Your task to perform on an android device: Open my contact list Image 0: 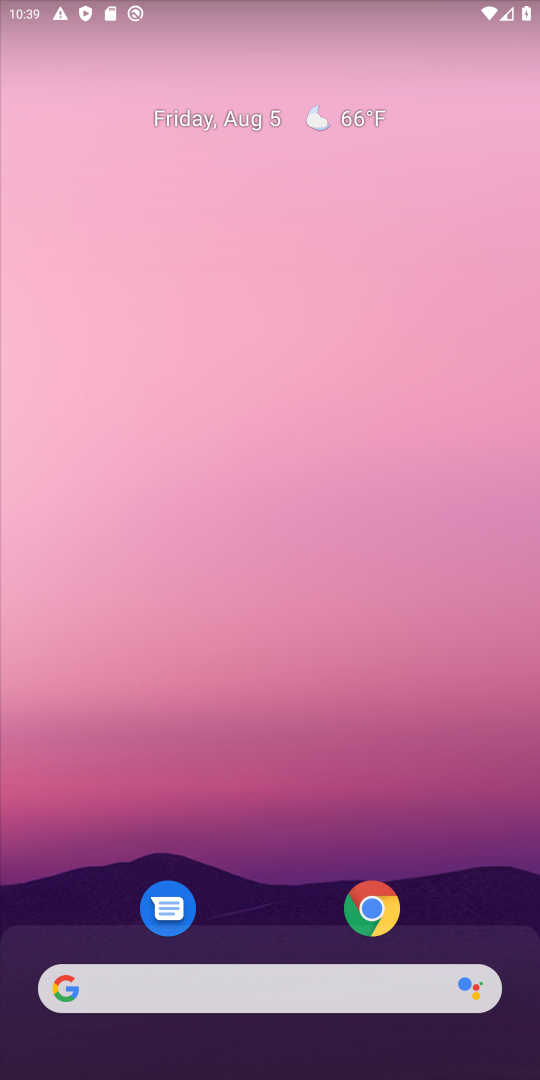
Step 0: drag from (68, 907) to (334, 376)
Your task to perform on an android device: Open my contact list Image 1: 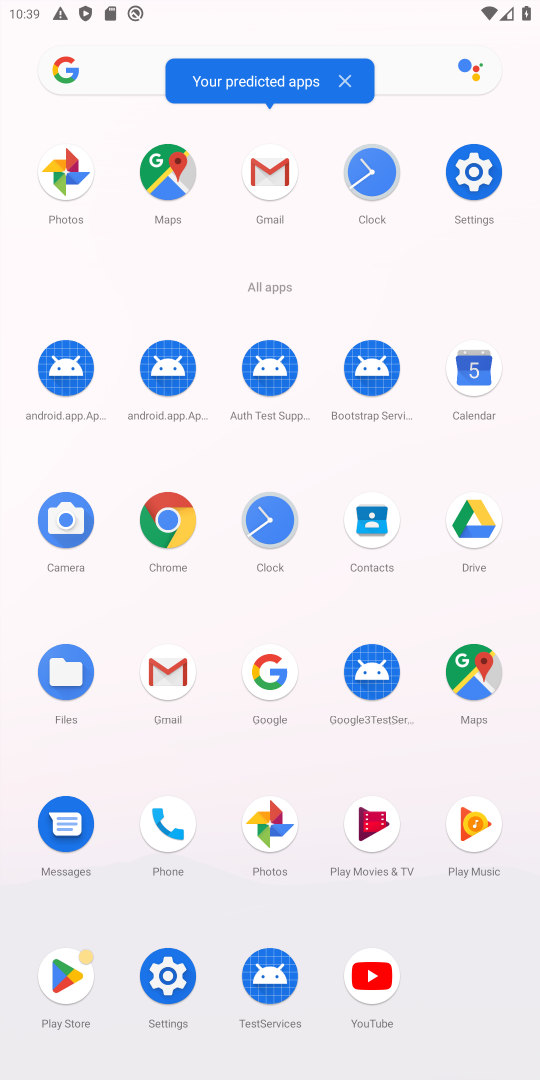
Step 1: click (159, 815)
Your task to perform on an android device: Open my contact list Image 2: 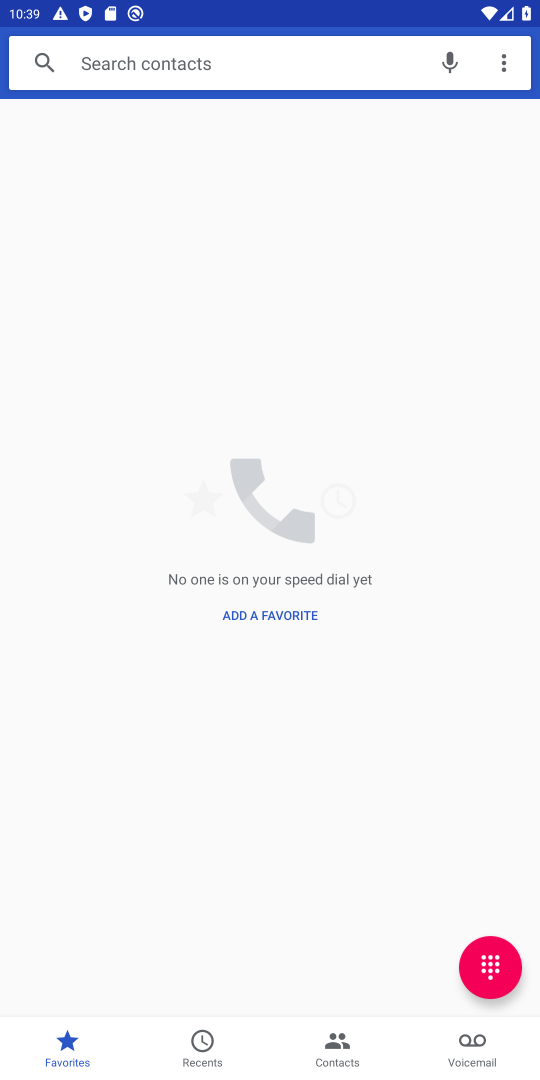
Step 2: click (343, 1072)
Your task to perform on an android device: Open my contact list Image 3: 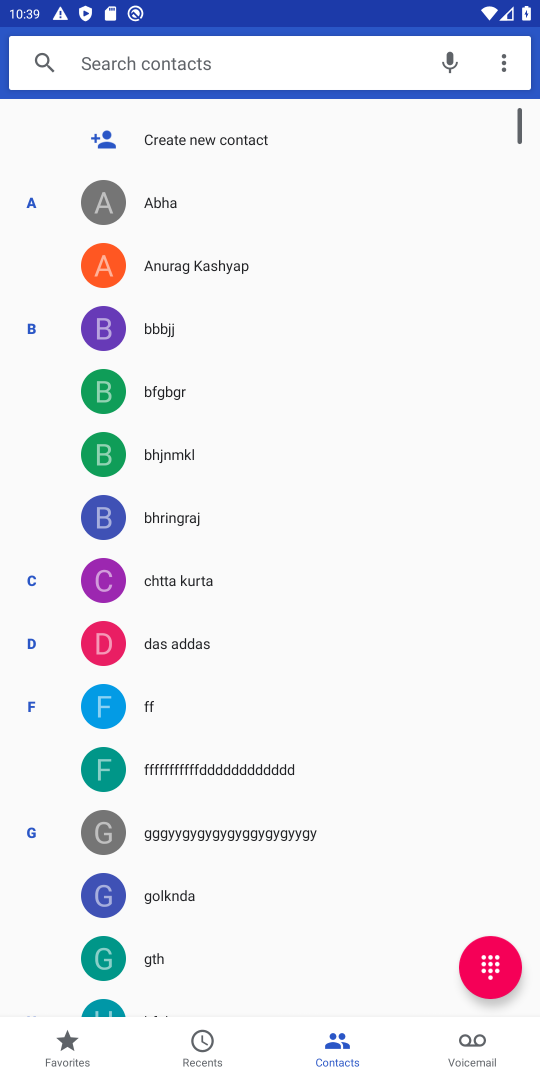
Step 3: task complete